Your task to perform on an android device: check data usage Image 0: 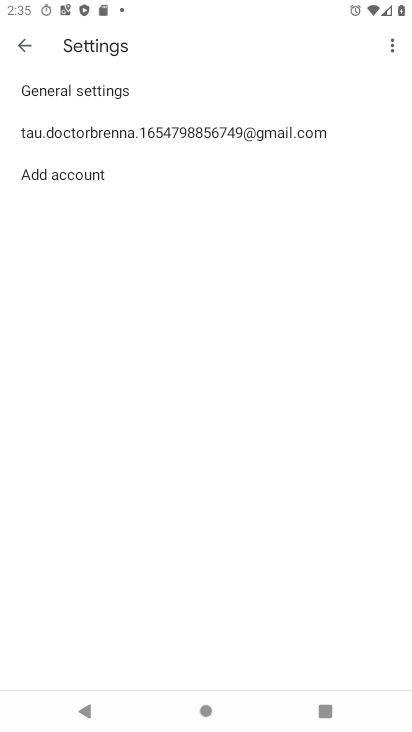
Step 0: press home button
Your task to perform on an android device: check data usage Image 1: 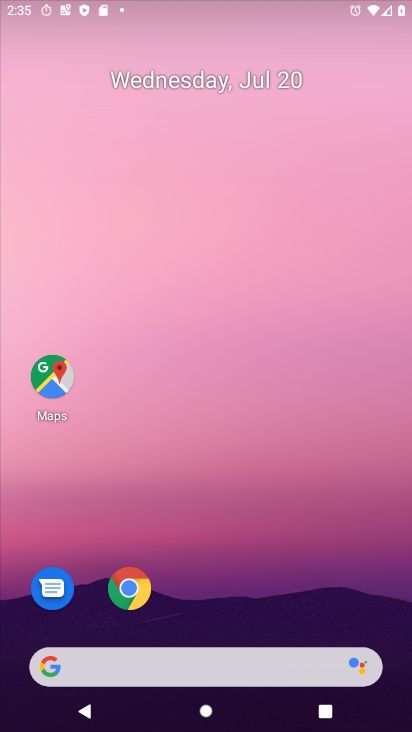
Step 1: drag from (241, 593) to (211, 0)
Your task to perform on an android device: check data usage Image 2: 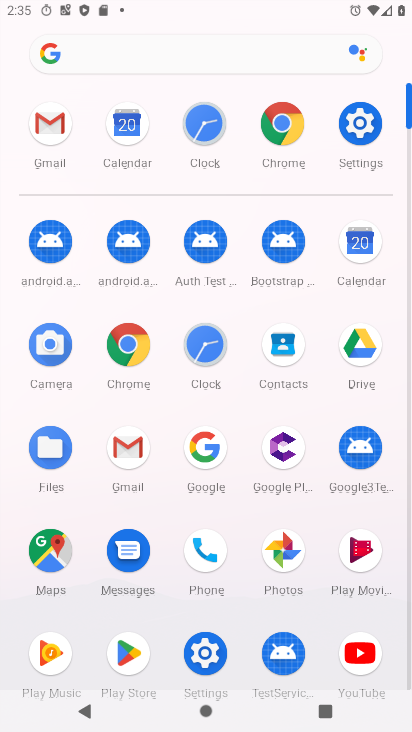
Step 2: click (354, 126)
Your task to perform on an android device: check data usage Image 3: 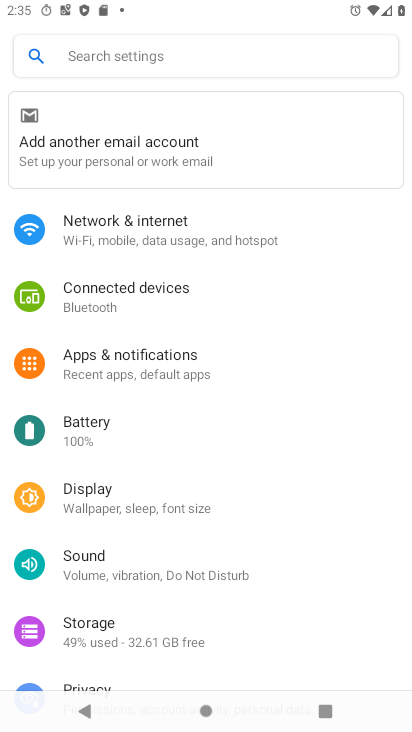
Step 3: click (154, 230)
Your task to perform on an android device: check data usage Image 4: 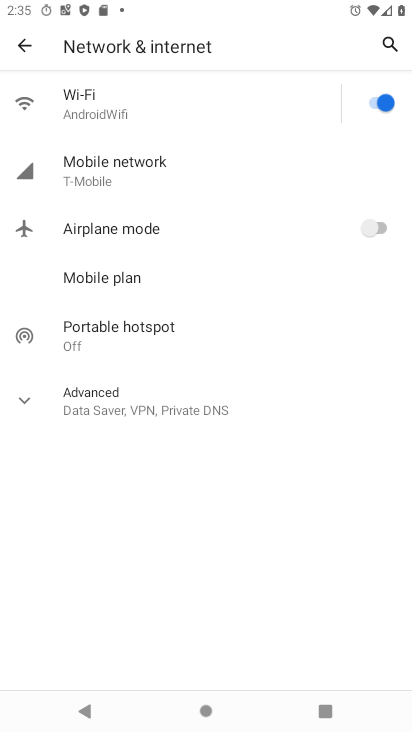
Step 4: click (110, 160)
Your task to perform on an android device: check data usage Image 5: 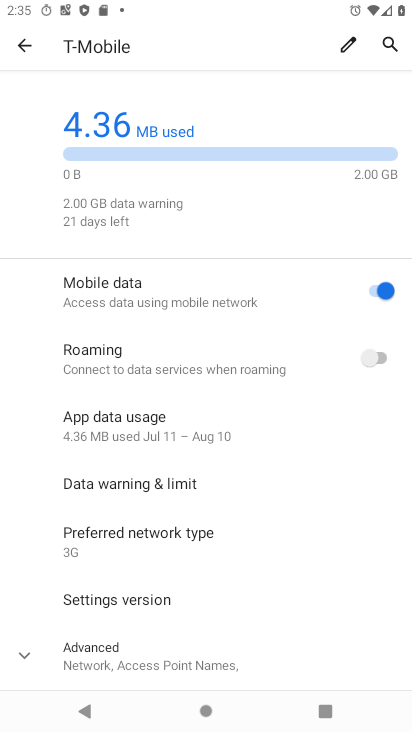
Step 5: task complete